Your task to perform on an android device: Open Maps and search for coffee Image 0: 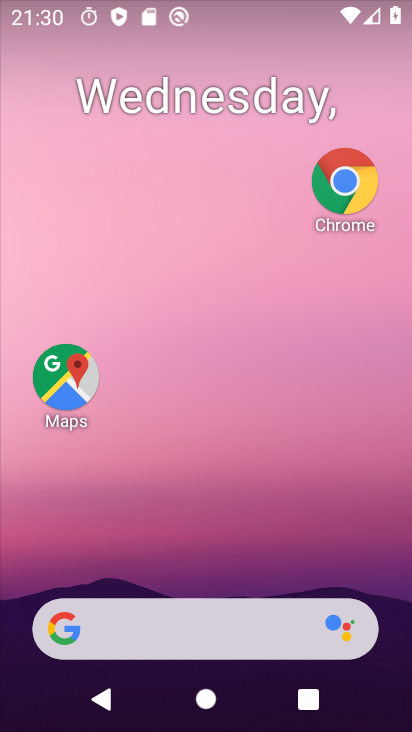
Step 0: drag from (207, 660) to (194, 150)
Your task to perform on an android device: Open Maps and search for coffee Image 1: 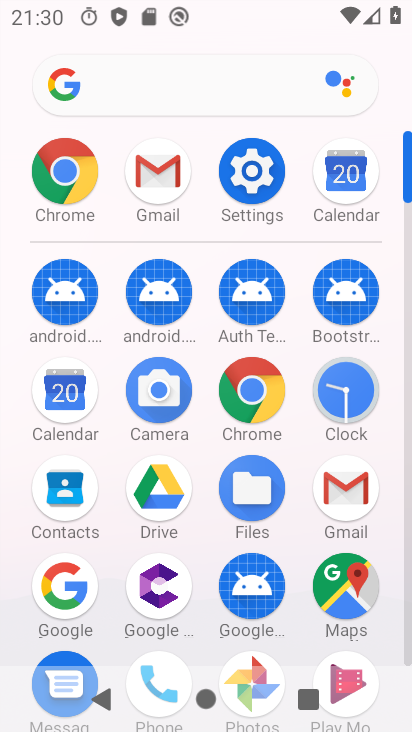
Step 1: click (349, 587)
Your task to perform on an android device: Open Maps and search for coffee Image 2: 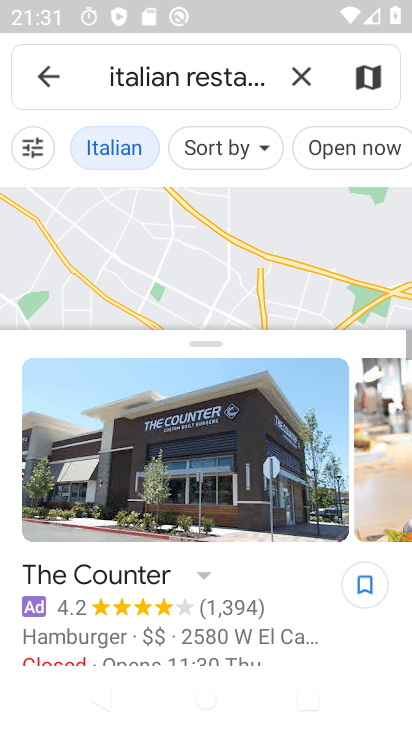
Step 2: click (298, 74)
Your task to perform on an android device: Open Maps and search for coffee Image 3: 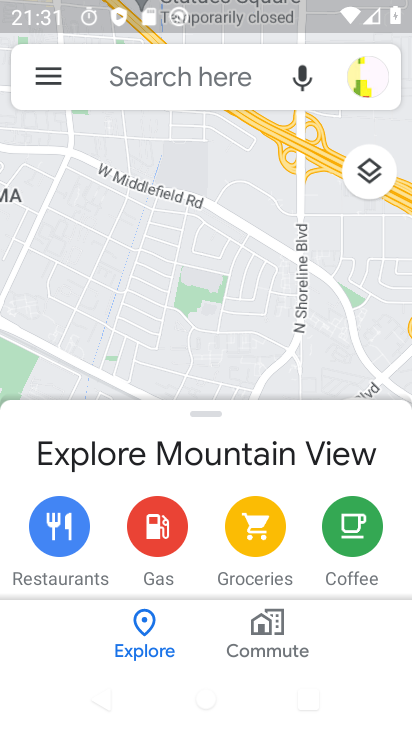
Step 3: click (201, 75)
Your task to perform on an android device: Open Maps and search for coffee Image 4: 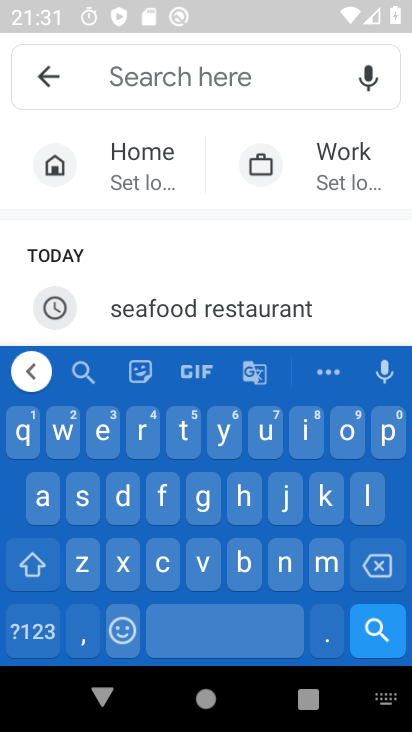
Step 4: click (153, 566)
Your task to perform on an android device: Open Maps and search for coffee Image 5: 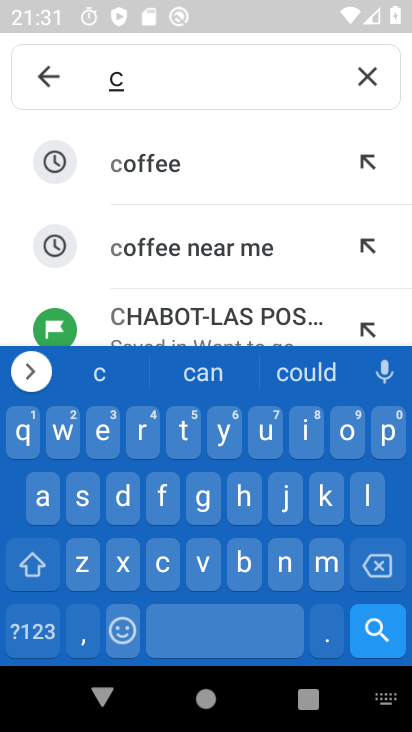
Step 5: click (189, 173)
Your task to perform on an android device: Open Maps and search for coffee Image 6: 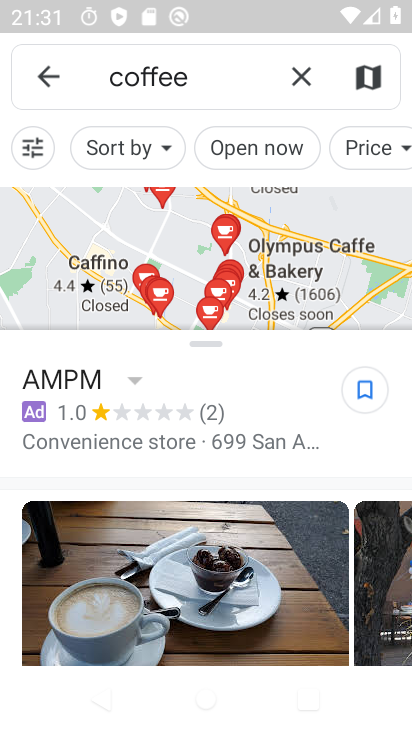
Step 6: click (195, 244)
Your task to perform on an android device: Open Maps and search for coffee Image 7: 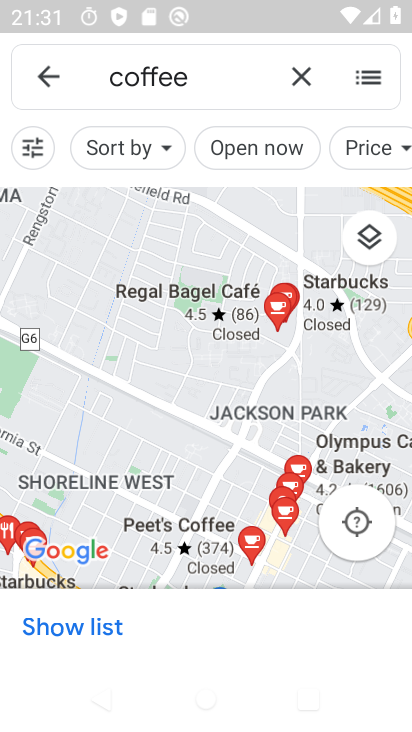
Step 7: task complete